Your task to perform on an android device: Search for sushi restaurants on Maps Image 0: 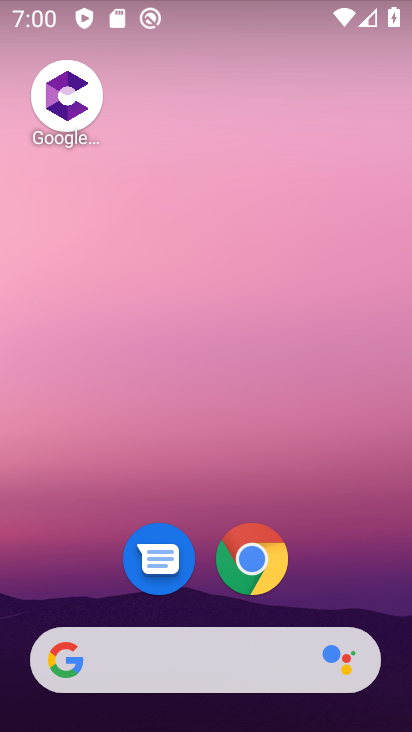
Step 0: drag from (360, 561) to (406, 18)
Your task to perform on an android device: Search for sushi restaurants on Maps Image 1: 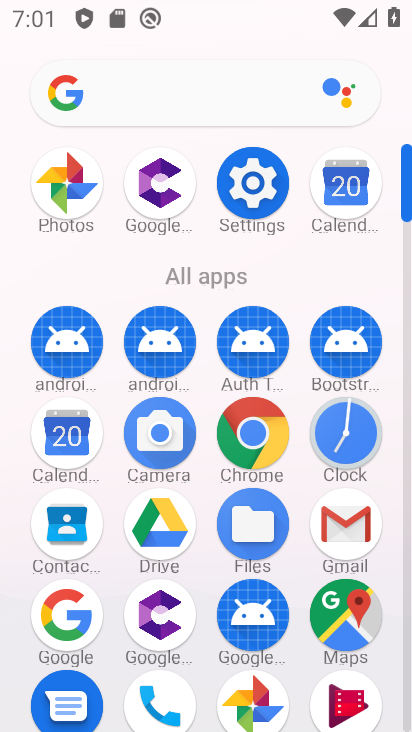
Step 1: click (271, 440)
Your task to perform on an android device: Search for sushi restaurants on Maps Image 2: 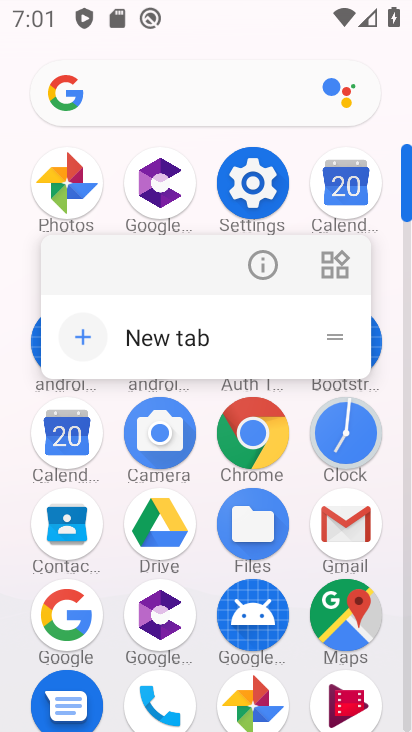
Step 2: press home button
Your task to perform on an android device: Search for sushi restaurants on Maps Image 3: 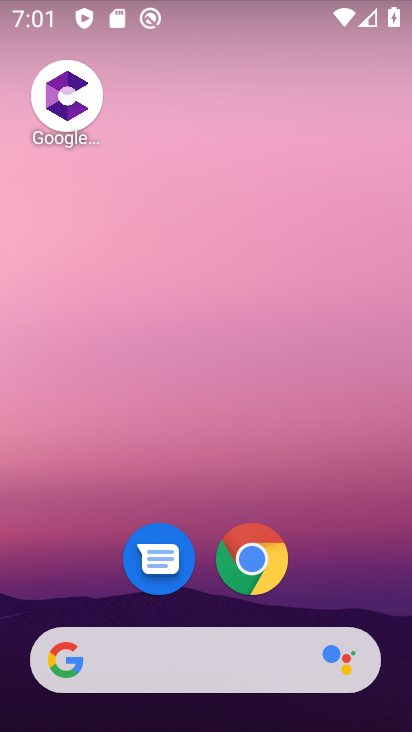
Step 3: drag from (354, 583) to (311, 90)
Your task to perform on an android device: Search for sushi restaurants on Maps Image 4: 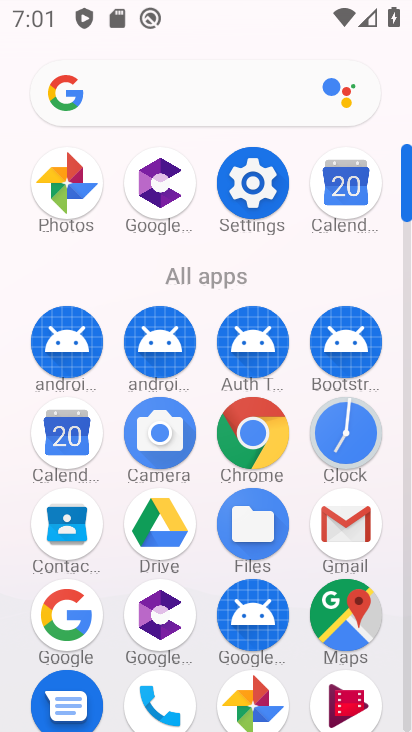
Step 4: click (331, 607)
Your task to perform on an android device: Search for sushi restaurants on Maps Image 5: 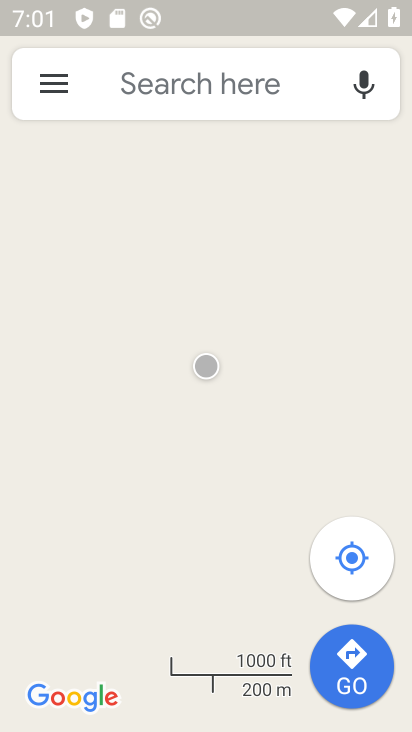
Step 5: click (161, 96)
Your task to perform on an android device: Search for sushi restaurants on Maps Image 6: 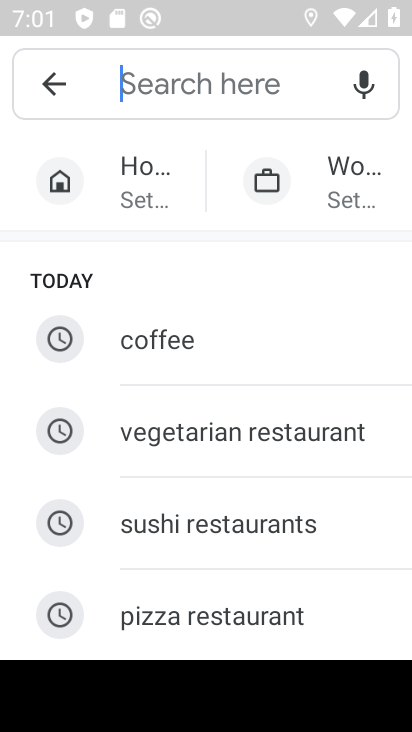
Step 6: type "sushi restaurants "
Your task to perform on an android device: Search for sushi restaurants on Maps Image 7: 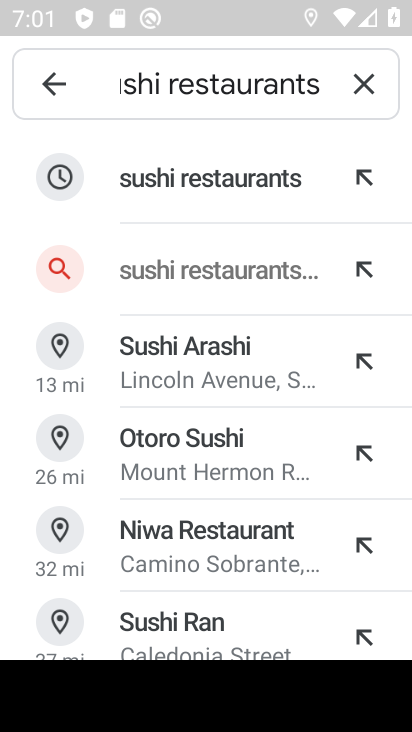
Step 7: click (294, 167)
Your task to perform on an android device: Search for sushi restaurants on Maps Image 8: 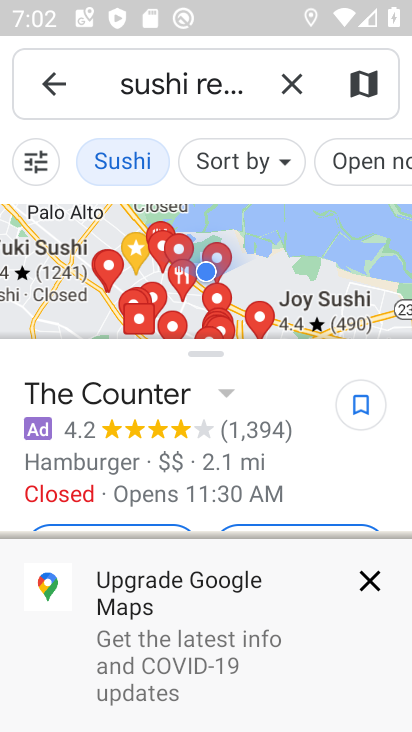
Step 8: task complete